Your task to perform on an android device: turn off sleep mode Image 0: 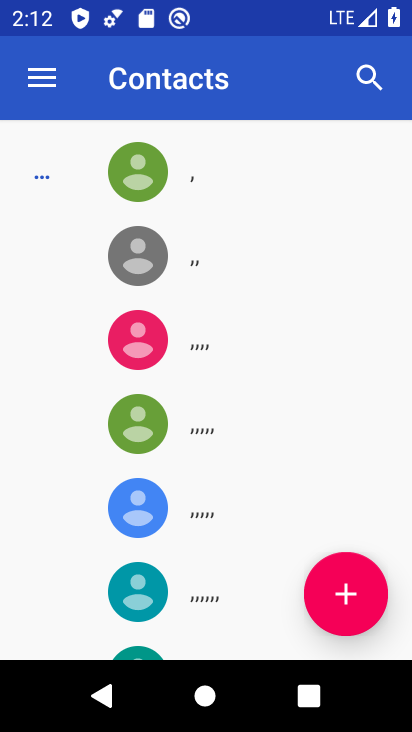
Step 0: press home button
Your task to perform on an android device: turn off sleep mode Image 1: 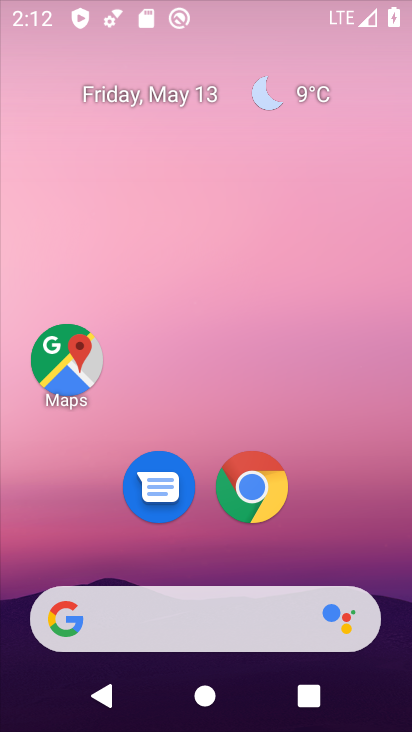
Step 1: drag from (307, 519) to (305, 136)
Your task to perform on an android device: turn off sleep mode Image 2: 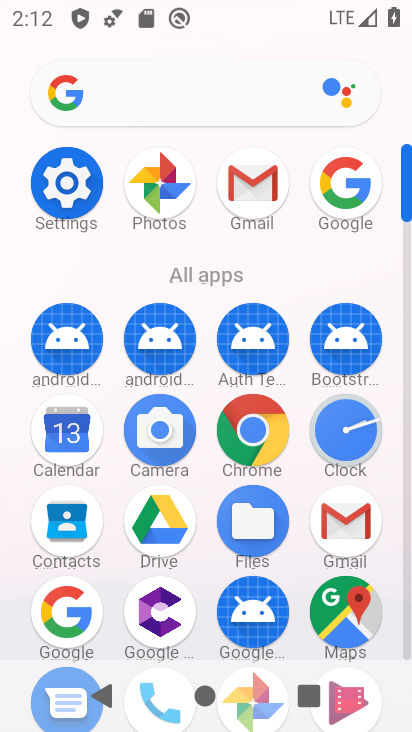
Step 2: click (64, 176)
Your task to perform on an android device: turn off sleep mode Image 3: 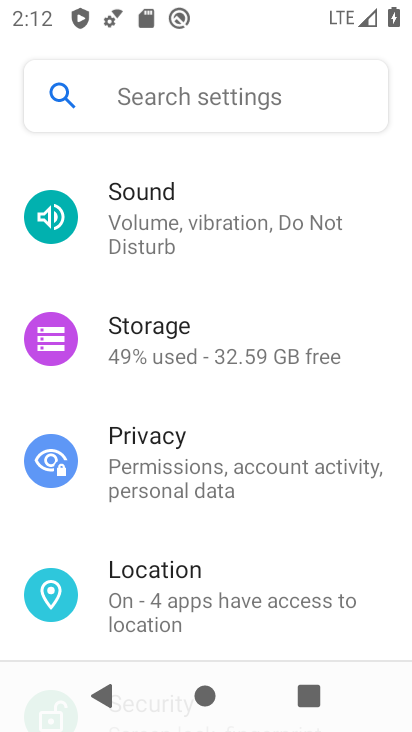
Step 3: drag from (228, 214) to (230, 392)
Your task to perform on an android device: turn off sleep mode Image 4: 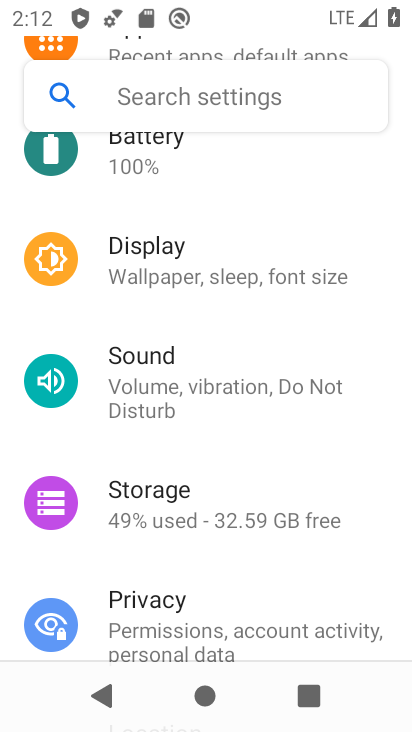
Step 4: click (208, 268)
Your task to perform on an android device: turn off sleep mode Image 5: 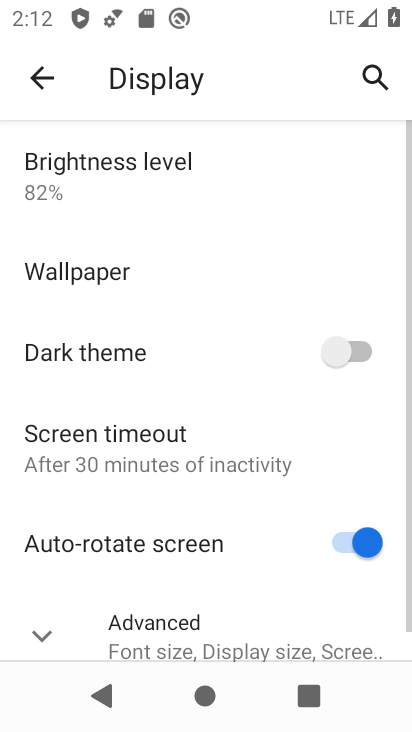
Step 5: click (140, 455)
Your task to perform on an android device: turn off sleep mode Image 6: 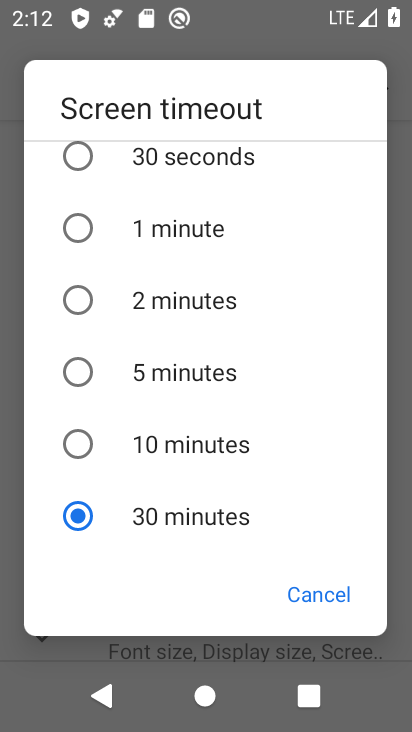
Step 6: task complete